Your task to perform on an android device: Go to CNN.com Image 0: 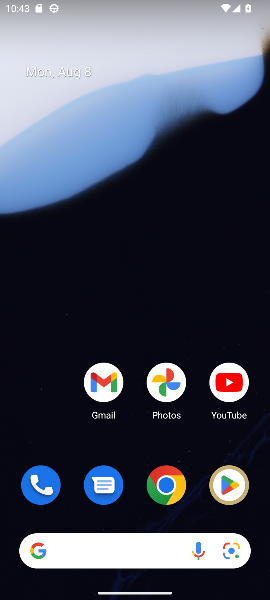
Step 0: click (171, 481)
Your task to perform on an android device: Go to CNN.com Image 1: 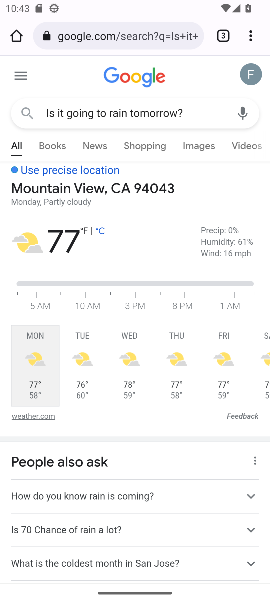
Step 1: click (122, 35)
Your task to perform on an android device: Go to CNN.com Image 2: 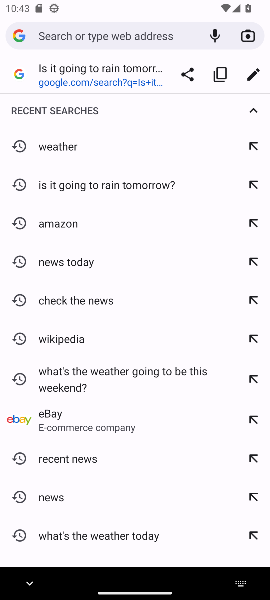
Step 2: type "CNN.com"
Your task to perform on an android device: Go to CNN.com Image 3: 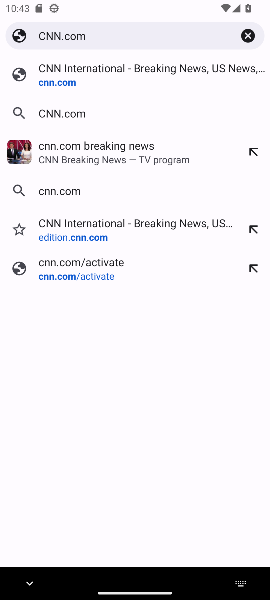
Step 3: click (51, 81)
Your task to perform on an android device: Go to CNN.com Image 4: 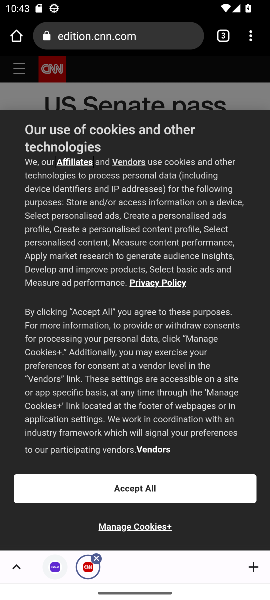
Step 4: click (135, 486)
Your task to perform on an android device: Go to CNN.com Image 5: 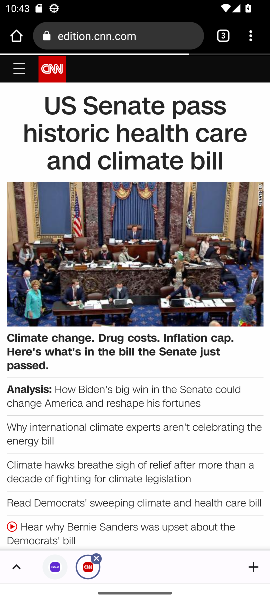
Step 5: task complete